Your task to perform on an android device: change notifications settings Image 0: 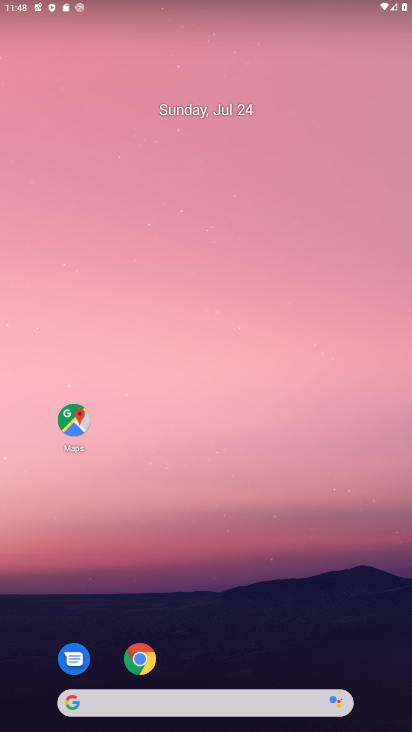
Step 0: drag from (31, 663) to (131, 213)
Your task to perform on an android device: change notifications settings Image 1: 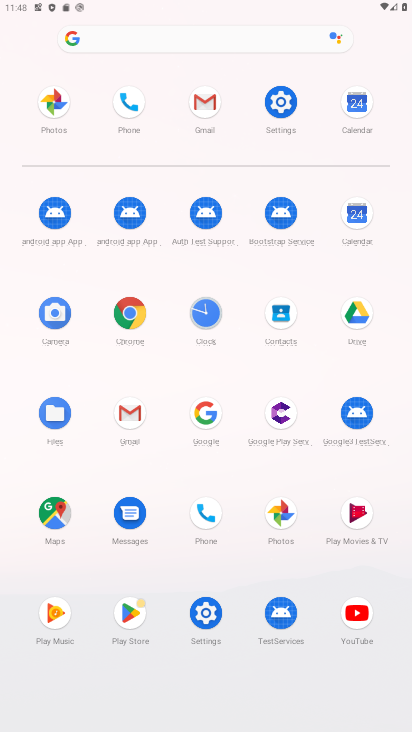
Step 1: click (208, 602)
Your task to perform on an android device: change notifications settings Image 2: 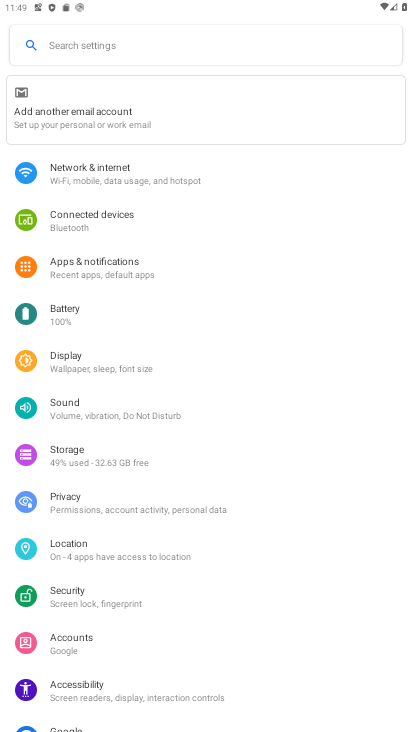
Step 2: click (114, 263)
Your task to perform on an android device: change notifications settings Image 3: 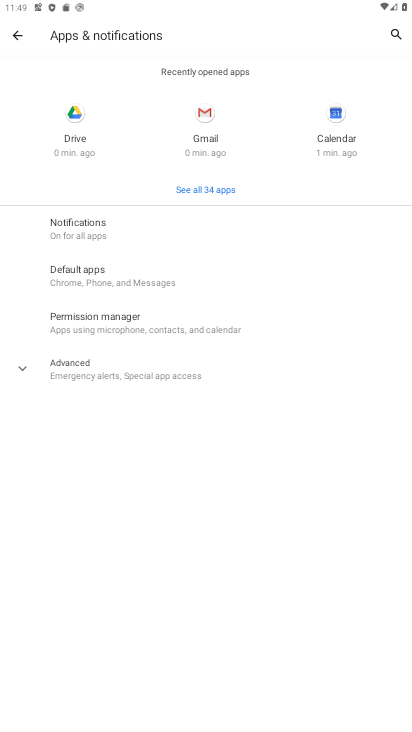
Step 3: click (65, 221)
Your task to perform on an android device: change notifications settings Image 4: 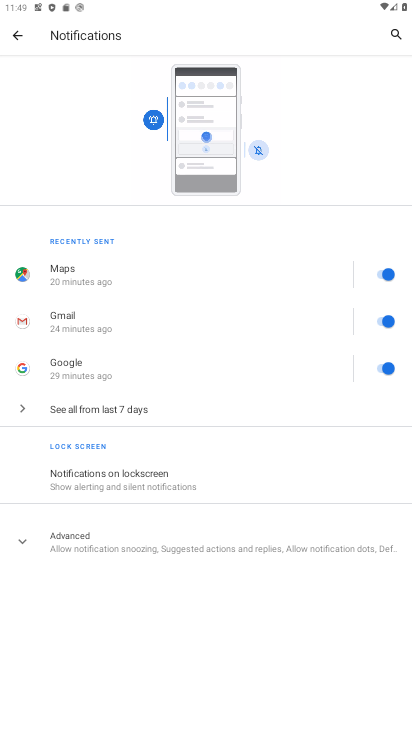
Step 4: task complete